Your task to perform on an android device: What's the weather going to be this weekend? Image 0: 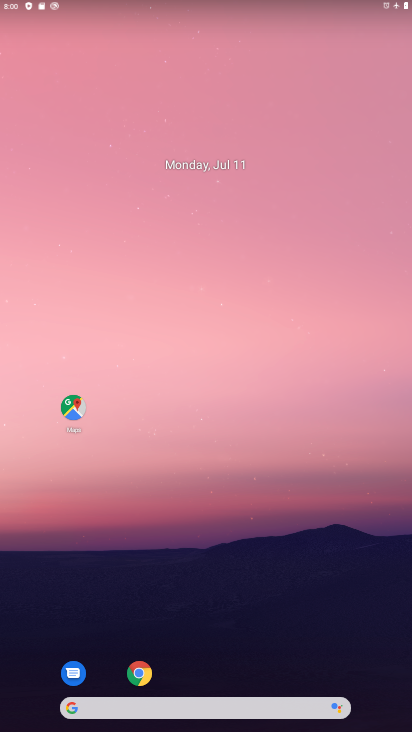
Step 0: drag from (327, 529) to (282, 138)
Your task to perform on an android device: What's the weather going to be this weekend? Image 1: 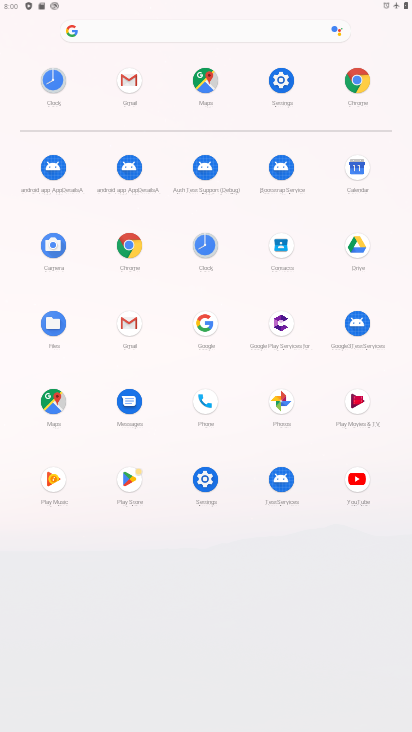
Step 1: click (362, 81)
Your task to perform on an android device: What's the weather going to be this weekend? Image 2: 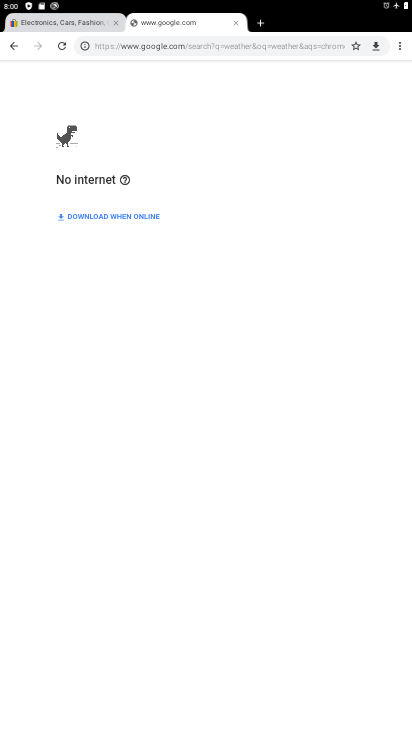
Step 2: task complete